Your task to perform on an android device: Search for a new phone on Amazon. Image 0: 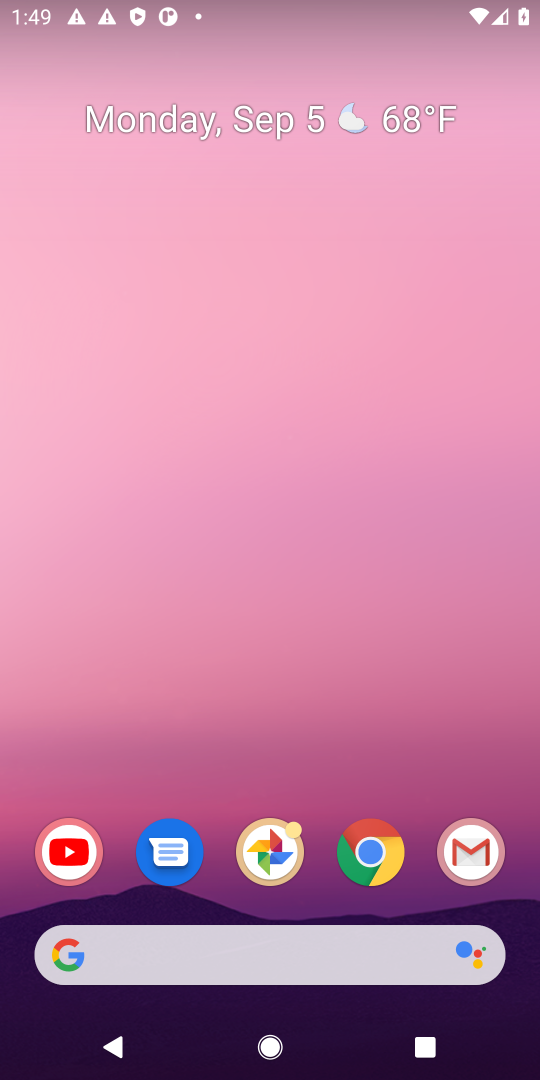
Step 0: click (373, 854)
Your task to perform on an android device: Search for a new phone on Amazon. Image 1: 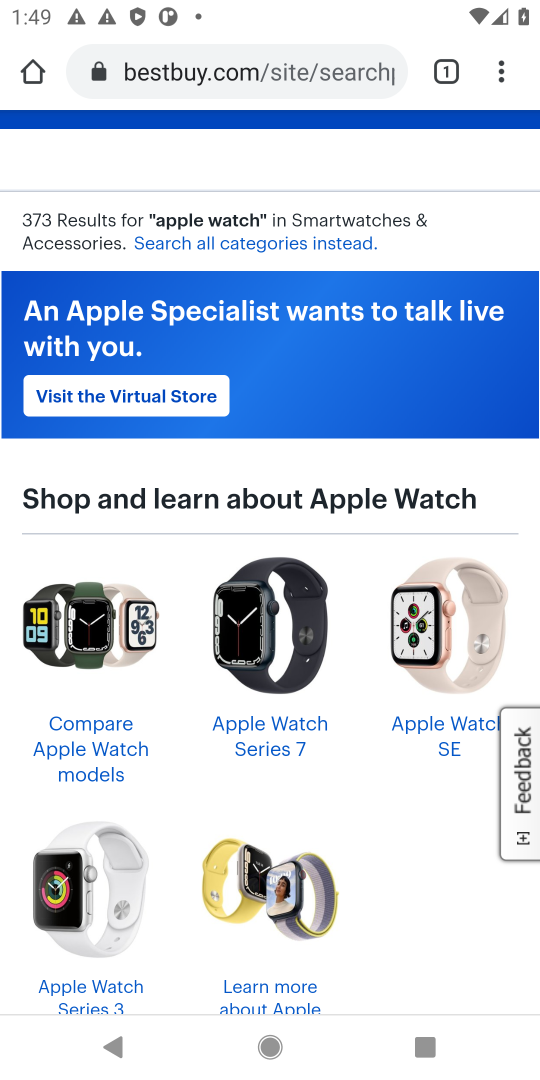
Step 1: click (298, 51)
Your task to perform on an android device: Search for a new phone on Amazon. Image 2: 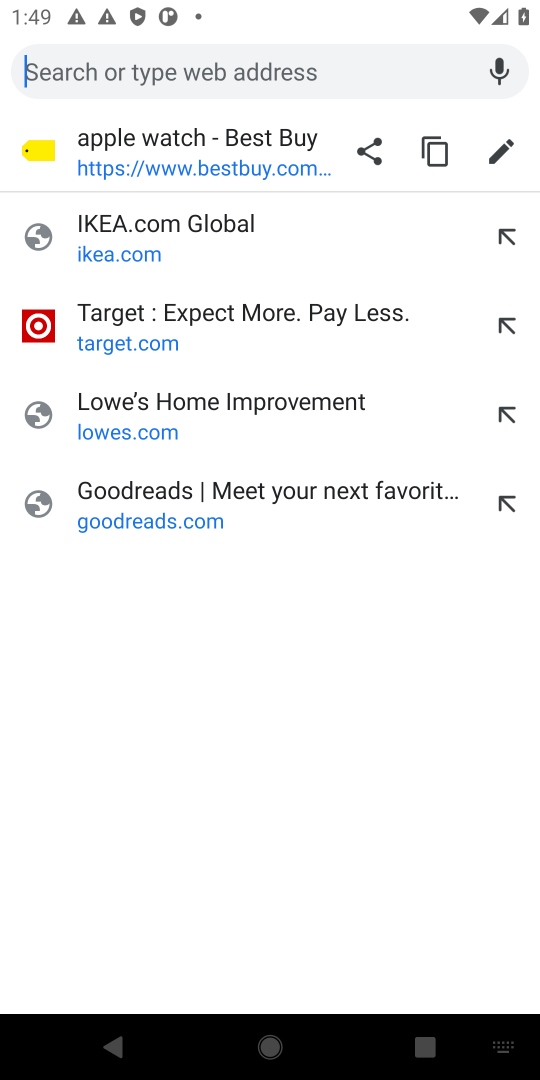
Step 2: type "Amazon"
Your task to perform on an android device: Search for a new phone on Amazon. Image 3: 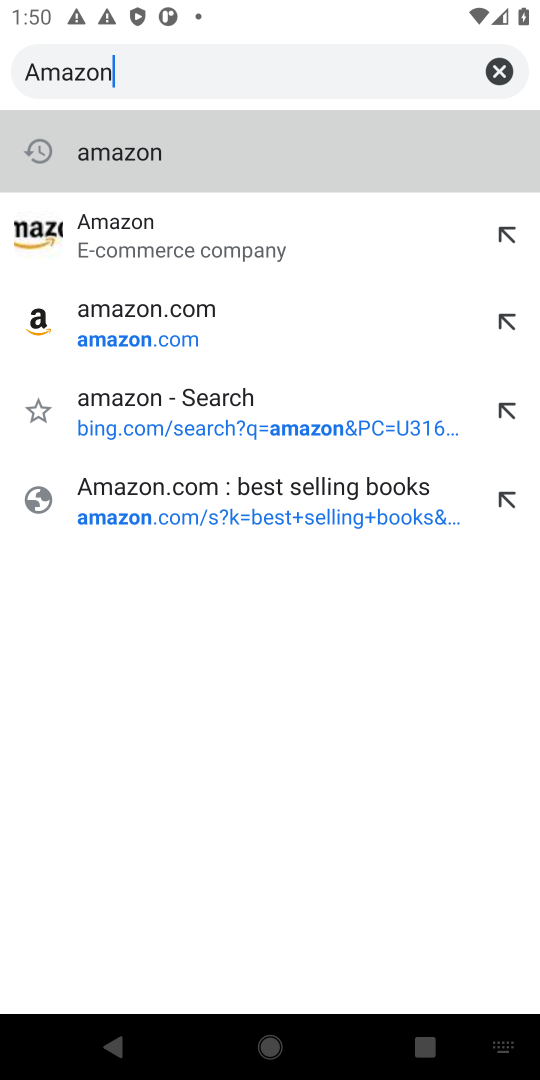
Step 3: click (124, 224)
Your task to perform on an android device: Search for a new phone on Amazon. Image 4: 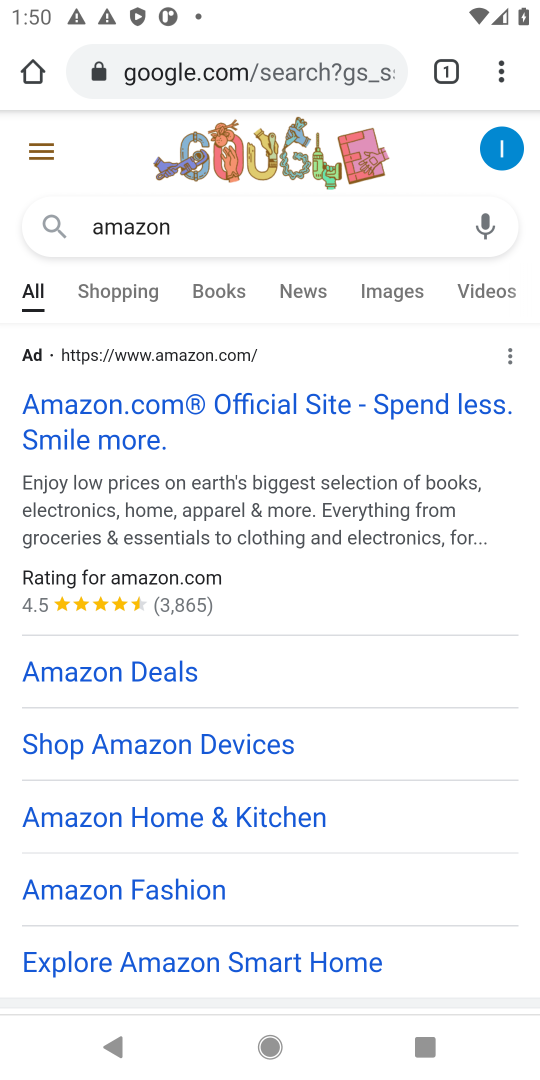
Step 4: click (87, 406)
Your task to perform on an android device: Search for a new phone on Amazon. Image 5: 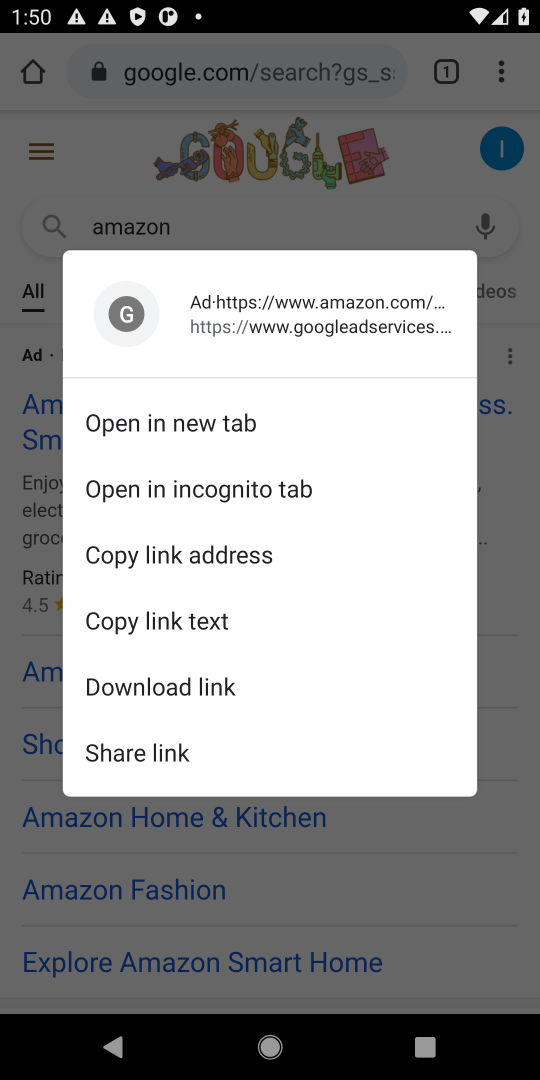
Step 5: click (371, 866)
Your task to perform on an android device: Search for a new phone on Amazon. Image 6: 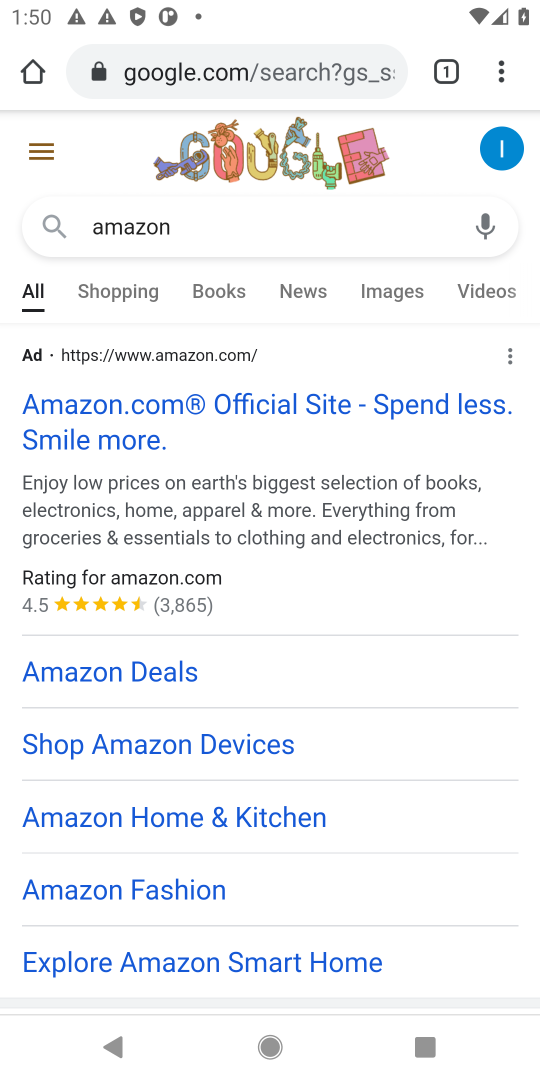
Step 6: click (103, 434)
Your task to perform on an android device: Search for a new phone on Amazon. Image 7: 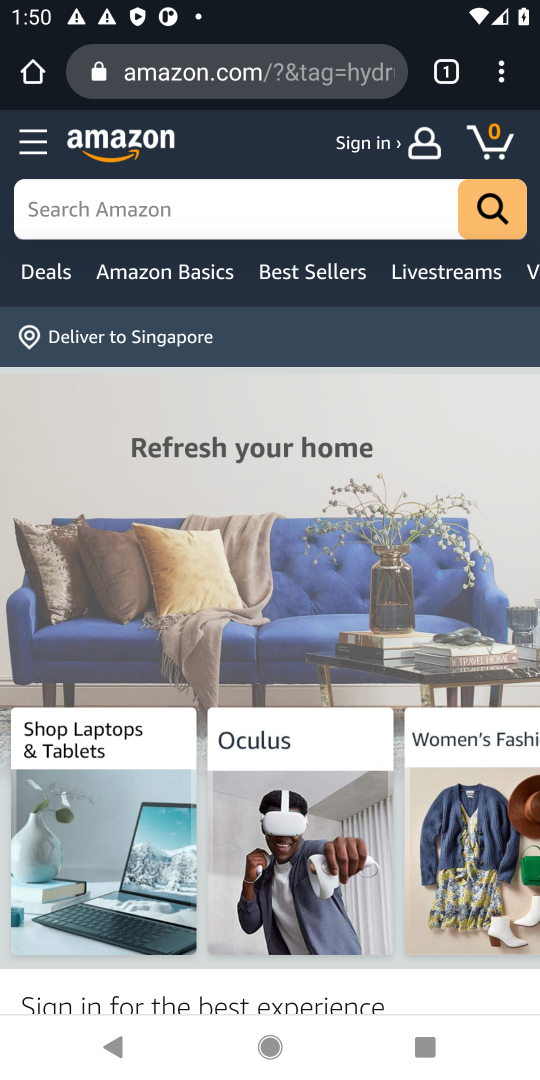
Step 7: click (128, 198)
Your task to perform on an android device: Search for a new phone on Amazon. Image 8: 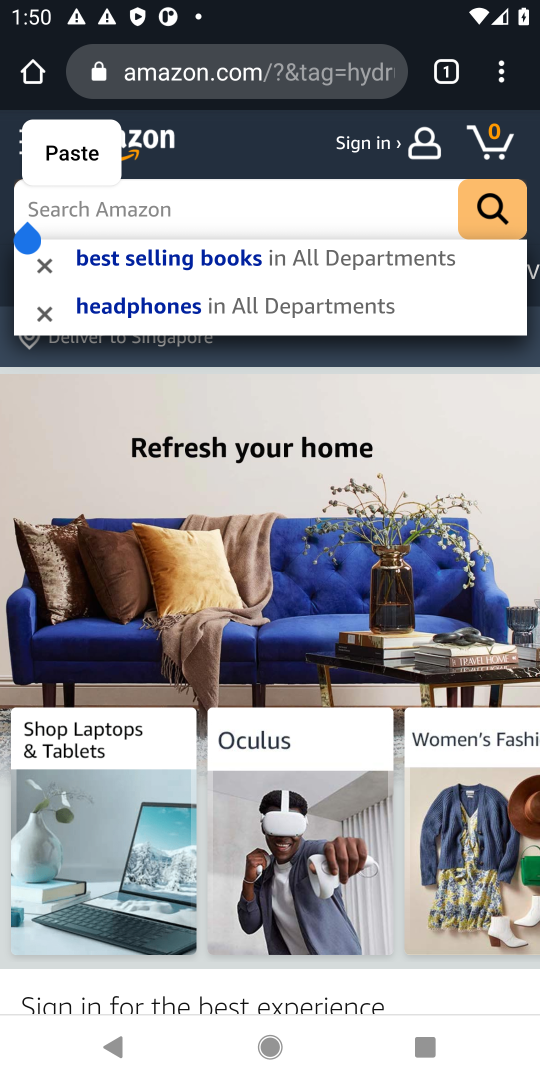
Step 8: type "new phones"
Your task to perform on an android device: Search for a new phone on Amazon. Image 9: 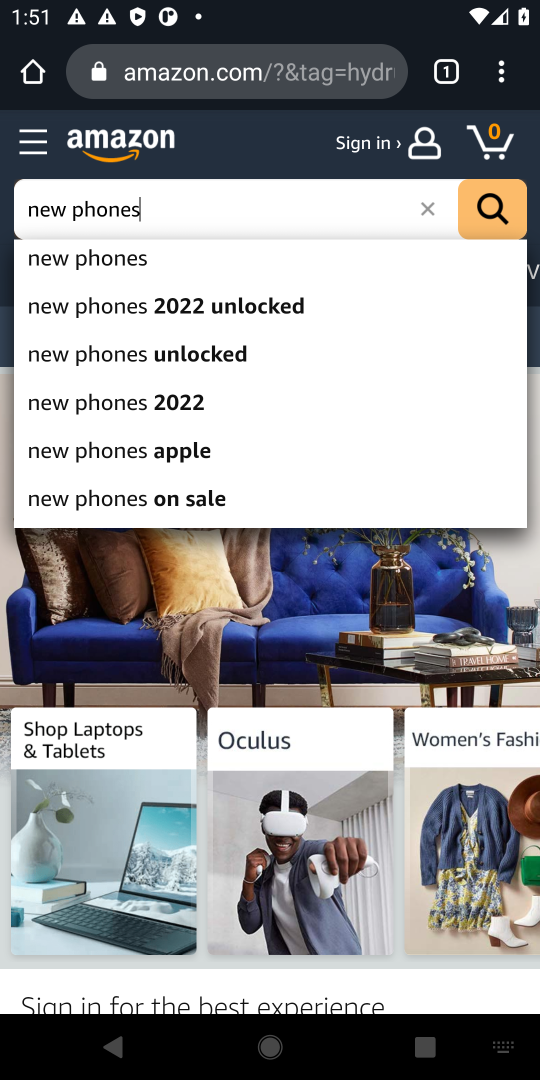
Step 9: click (144, 261)
Your task to perform on an android device: Search for a new phone on Amazon. Image 10: 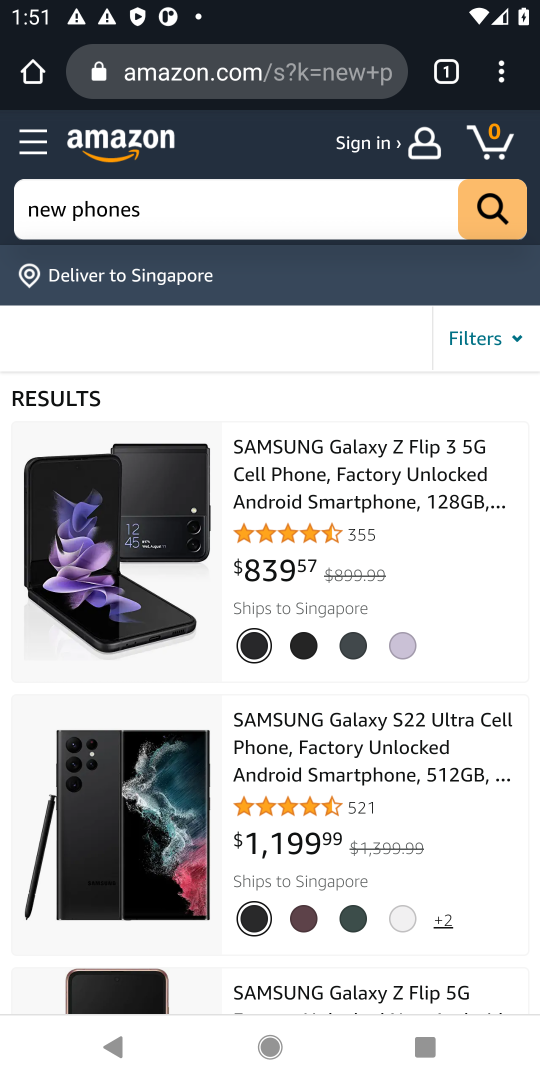
Step 10: task complete